Your task to perform on an android device: Open battery settings Image 0: 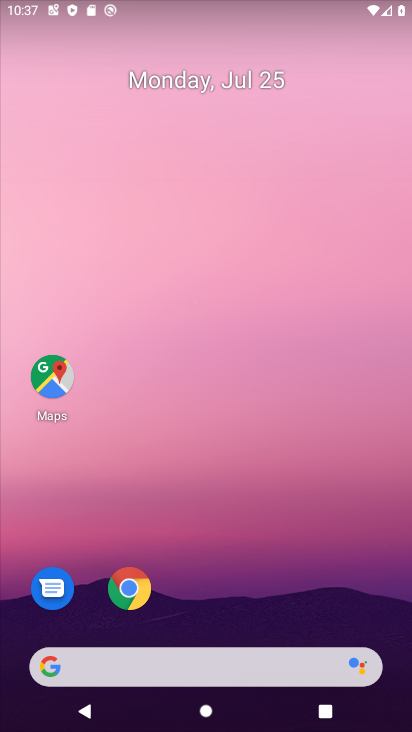
Step 0: drag from (296, 592) to (271, 124)
Your task to perform on an android device: Open battery settings Image 1: 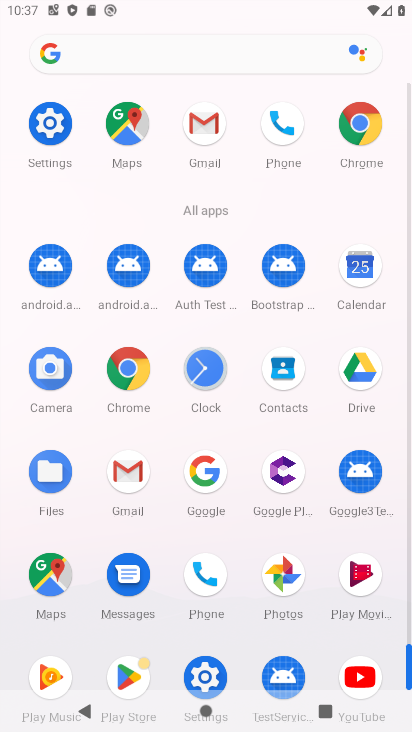
Step 1: click (211, 679)
Your task to perform on an android device: Open battery settings Image 2: 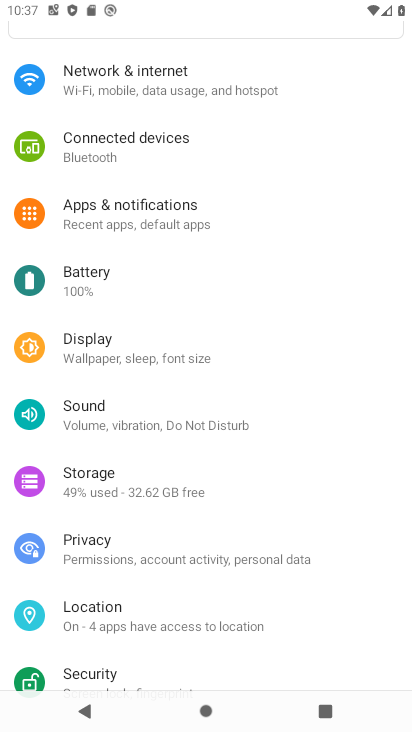
Step 2: click (229, 270)
Your task to perform on an android device: Open battery settings Image 3: 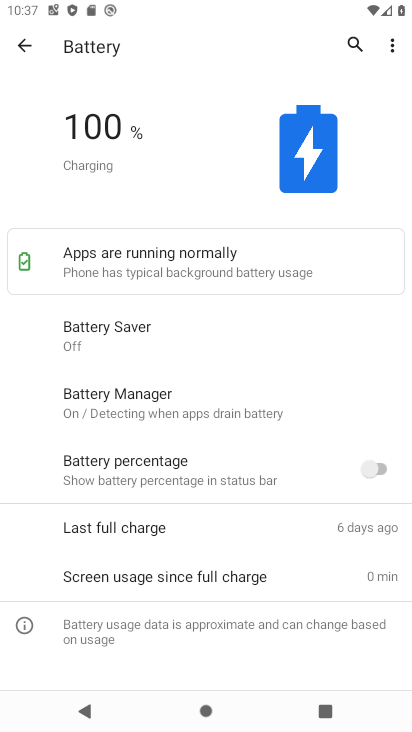
Step 3: task complete